Your task to perform on an android device: Do I have any events today? Image 0: 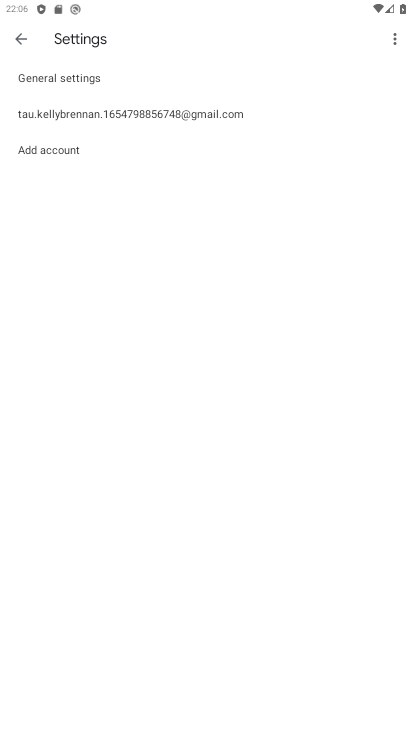
Step 0: press home button
Your task to perform on an android device: Do I have any events today? Image 1: 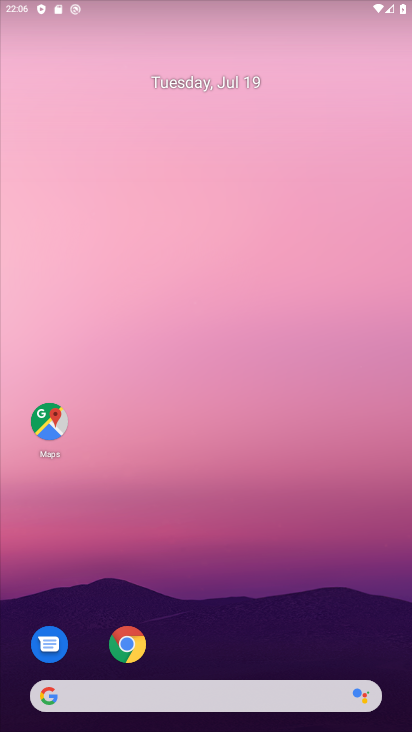
Step 1: drag from (258, 593) to (288, 23)
Your task to perform on an android device: Do I have any events today? Image 2: 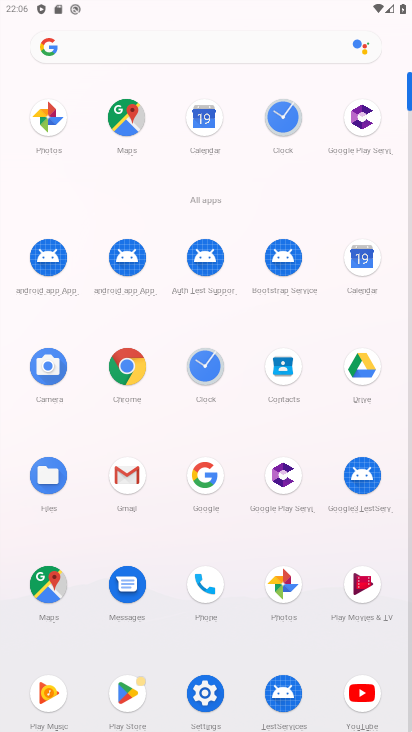
Step 2: click (362, 260)
Your task to perform on an android device: Do I have any events today? Image 3: 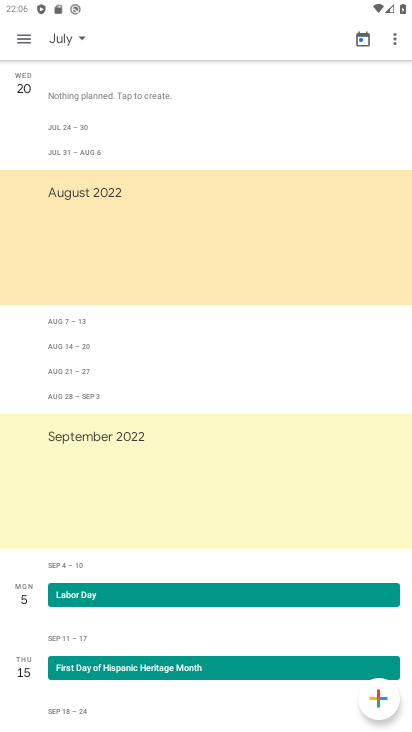
Step 3: click (77, 32)
Your task to perform on an android device: Do I have any events today? Image 4: 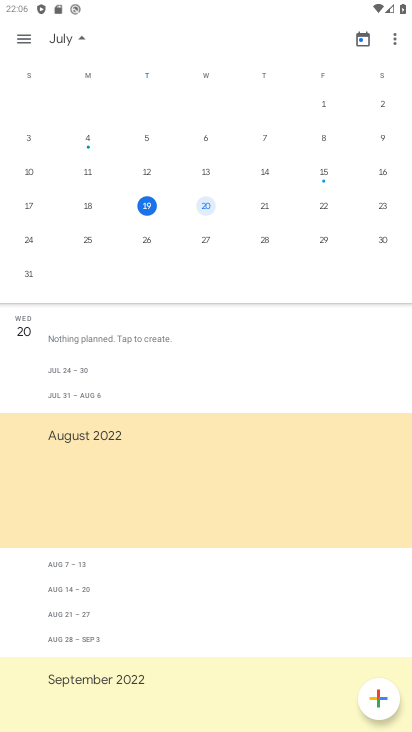
Step 4: click (202, 199)
Your task to perform on an android device: Do I have any events today? Image 5: 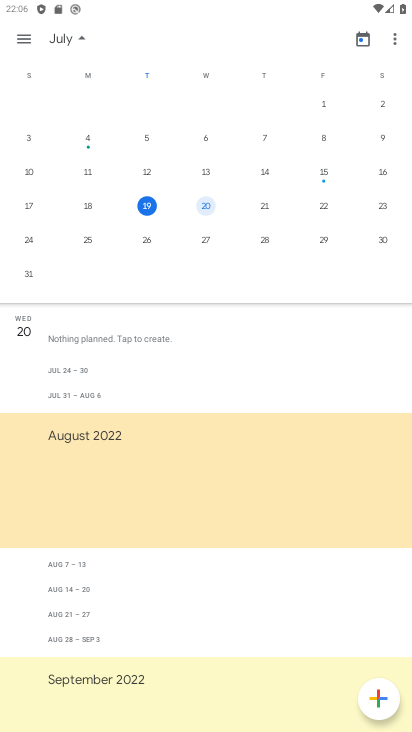
Step 5: drag from (175, 386) to (188, 292)
Your task to perform on an android device: Do I have any events today? Image 6: 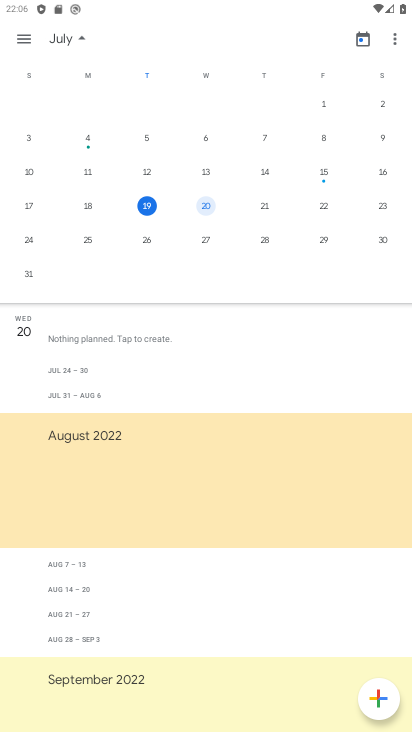
Step 6: click (207, 199)
Your task to perform on an android device: Do I have any events today? Image 7: 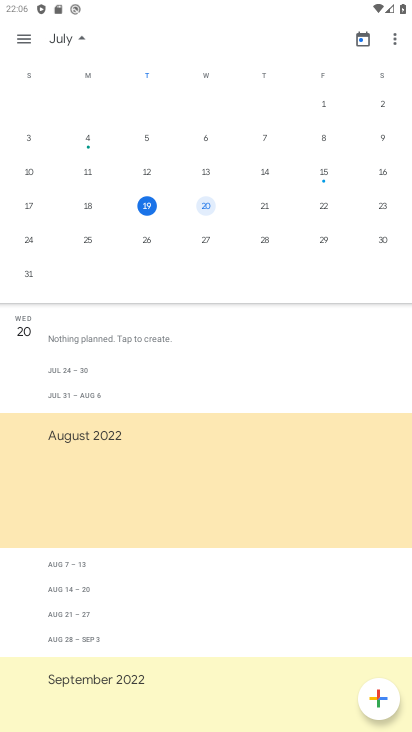
Step 7: task complete